Your task to perform on an android device: Open settings on Google Maps Image 0: 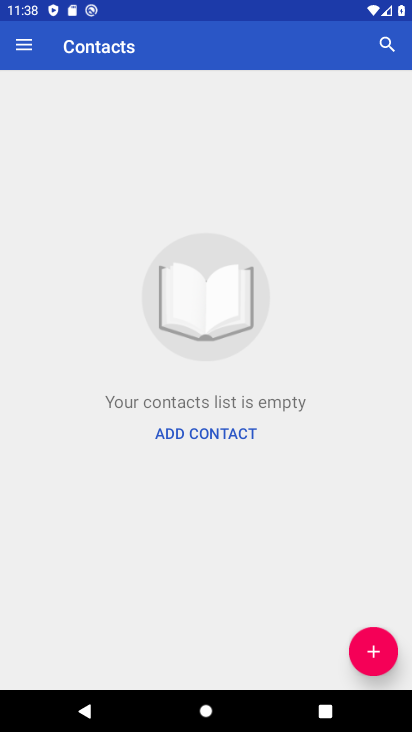
Step 0: press home button
Your task to perform on an android device: Open settings on Google Maps Image 1: 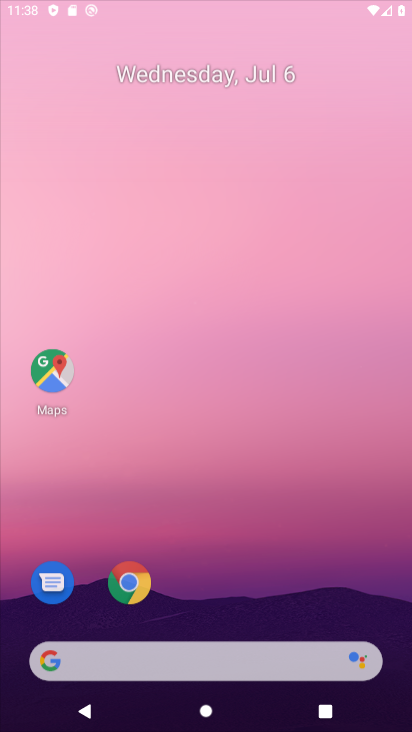
Step 1: drag from (248, 564) to (332, 25)
Your task to perform on an android device: Open settings on Google Maps Image 2: 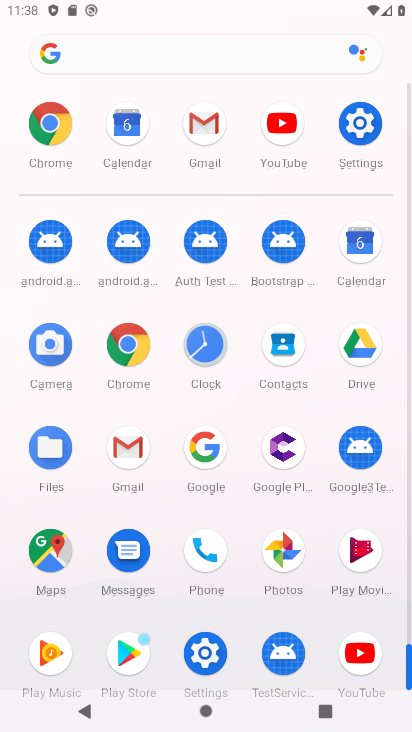
Step 2: click (51, 537)
Your task to perform on an android device: Open settings on Google Maps Image 3: 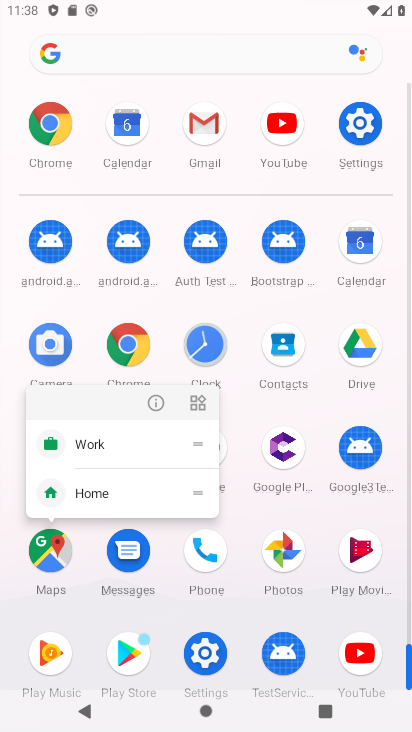
Step 3: click (154, 406)
Your task to perform on an android device: Open settings on Google Maps Image 4: 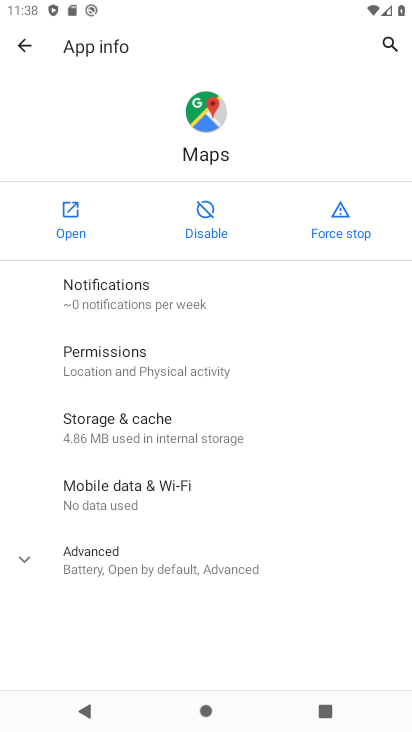
Step 4: click (72, 232)
Your task to perform on an android device: Open settings on Google Maps Image 5: 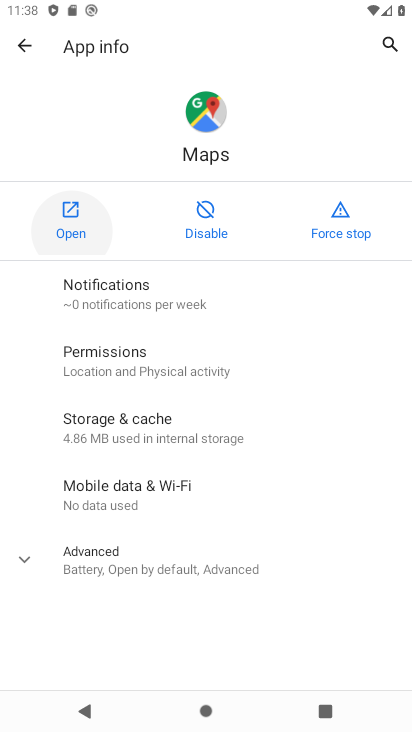
Step 5: click (72, 232)
Your task to perform on an android device: Open settings on Google Maps Image 6: 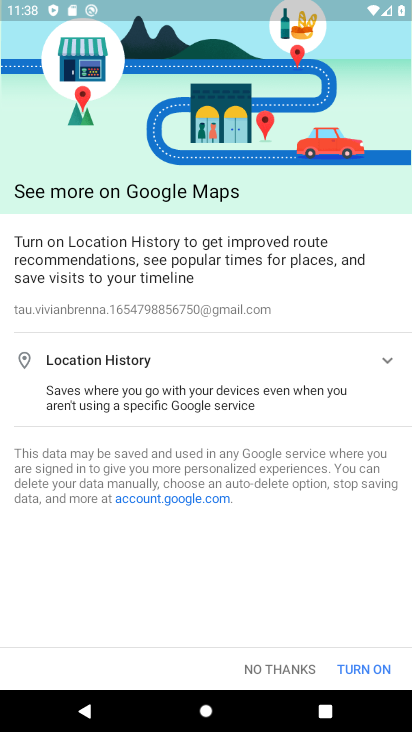
Step 6: press back button
Your task to perform on an android device: Open settings on Google Maps Image 7: 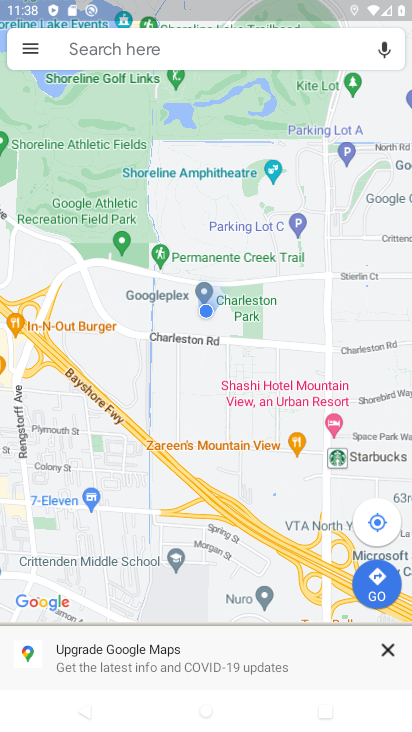
Step 7: click (40, 45)
Your task to perform on an android device: Open settings on Google Maps Image 8: 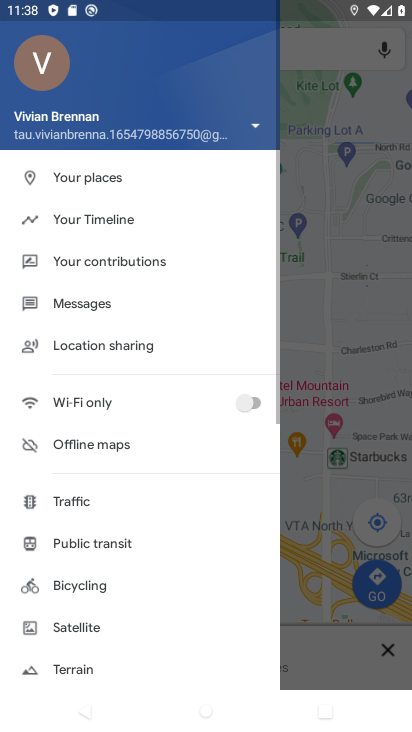
Step 8: drag from (124, 656) to (201, 161)
Your task to perform on an android device: Open settings on Google Maps Image 9: 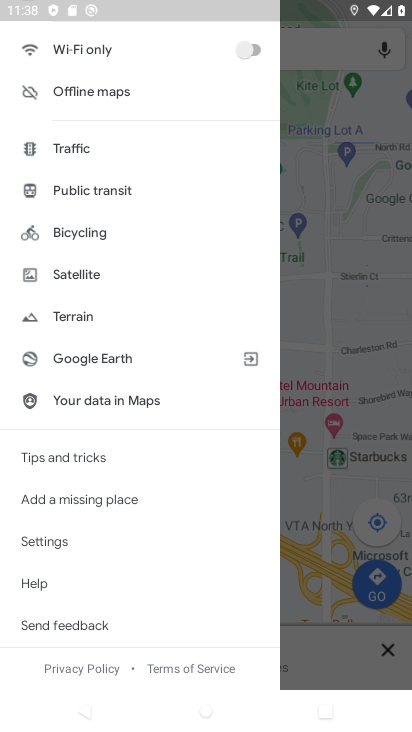
Step 9: click (71, 533)
Your task to perform on an android device: Open settings on Google Maps Image 10: 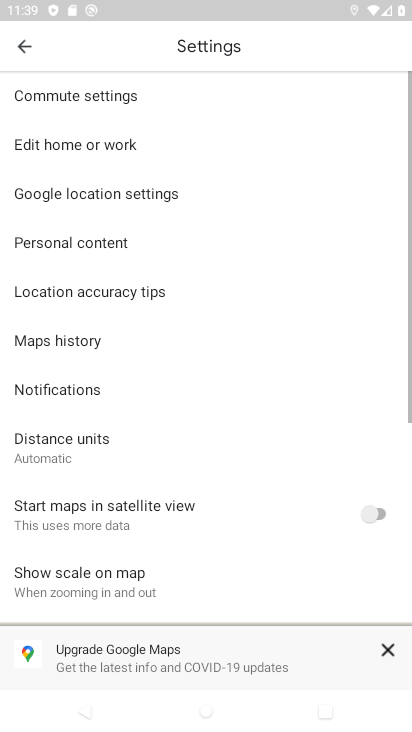
Step 10: task complete